Your task to perform on an android device: turn off data saver in the chrome app Image 0: 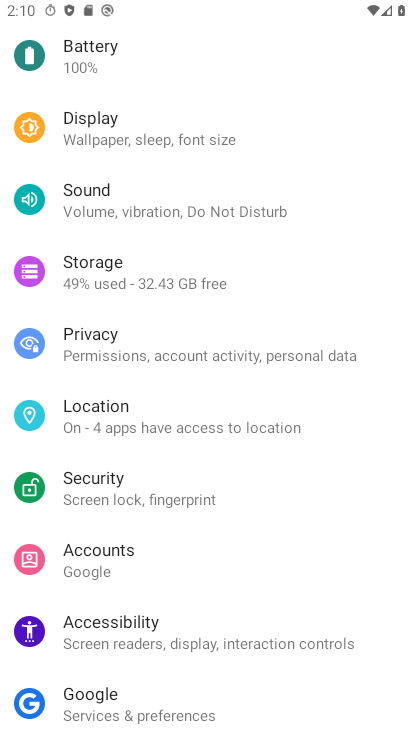
Step 0: press home button
Your task to perform on an android device: turn off data saver in the chrome app Image 1: 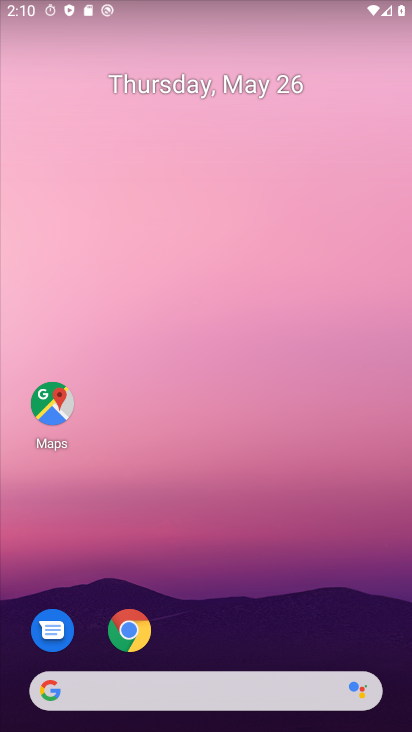
Step 1: click (120, 628)
Your task to perform on an android device: turn off data saver in the chrome app Image 2: 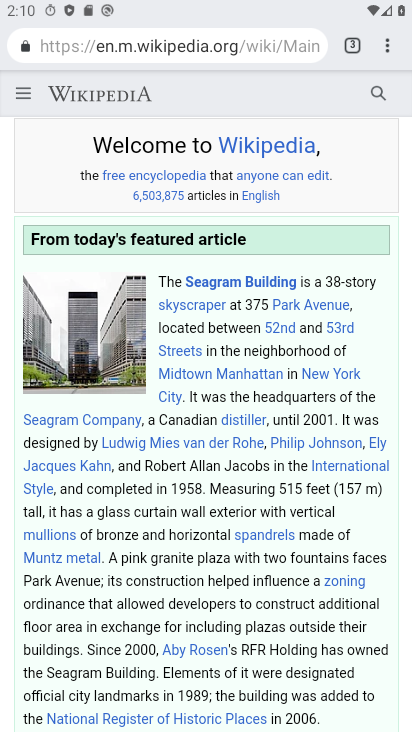
Step 2: click (381, 31)
Your task to perform on an android device: turn off data saver in the chrome app Image 3: 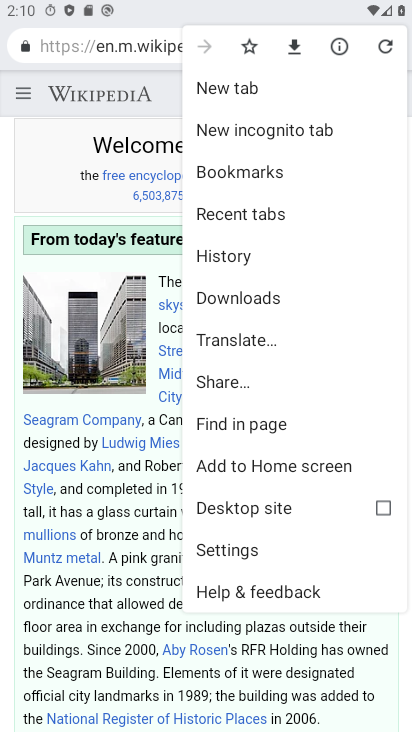
Step 3: click (238, 538)
Your task to perform on an android device: turn off data saver in the chrome app Image 4: 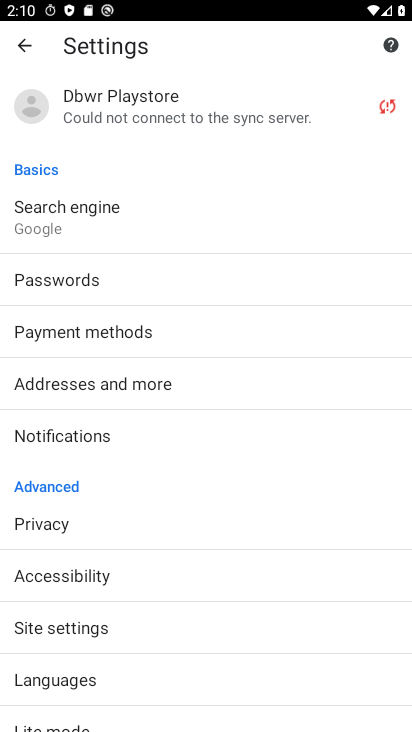
Step 4: drag from (176, 587) to (160, 186)
Your task to perform on an android device: turn off data saver in the chrome app Image 5: 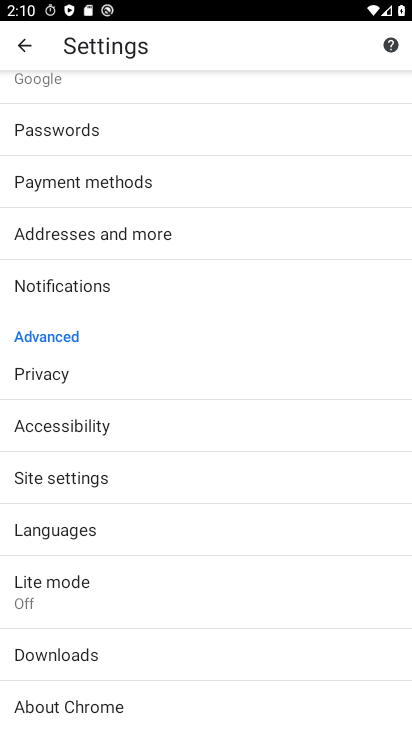
Step 5: click (82, 355)
Your task to perform on an android device: turn off data saver in the chrome app Image 6: 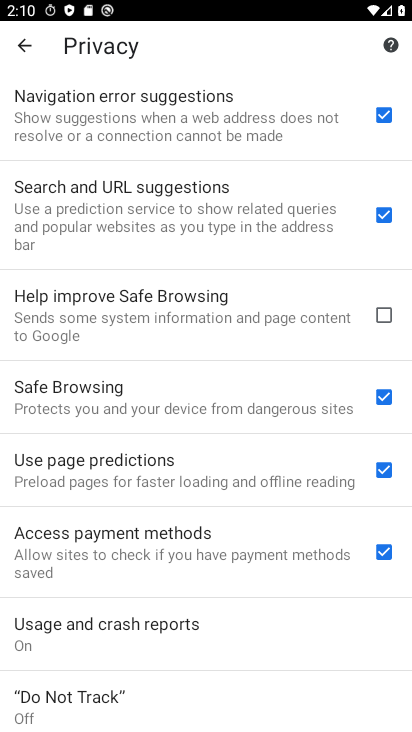
Step 6: drag from (109, 617) to (85, 164)
Your task to perform on an android device: turn off data saver in the chrome app Image 7: 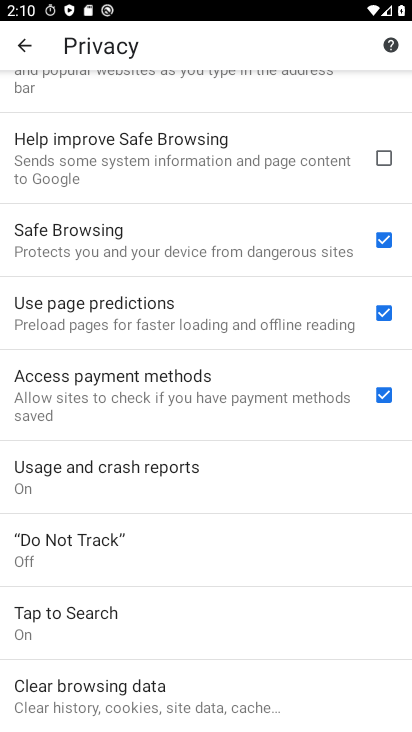
Step 7: drag from (105, 636) to (78, 219)
Your task to perform on an android device: turn off data saver in the chrome app Image 8: 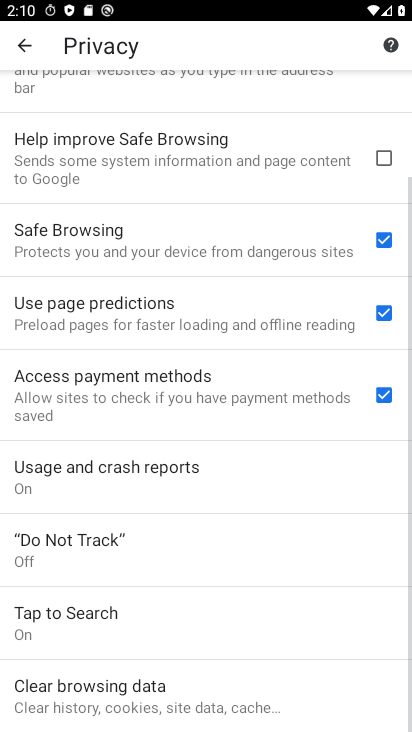
Step 8: press back button
Your task to perform on an android device: turn off data saver in the chrome app Image 9: 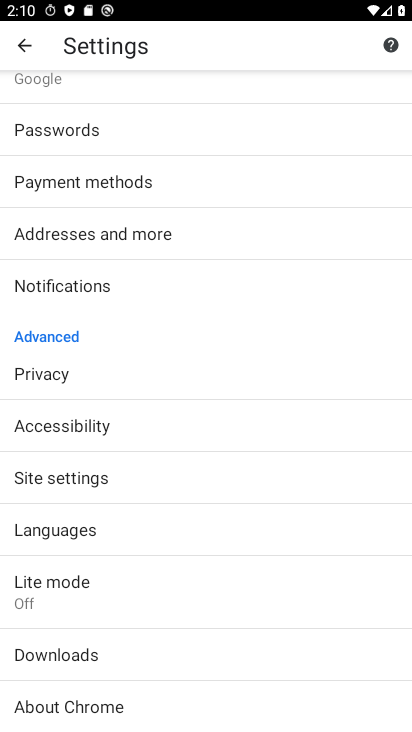
Step 9: click (89, 704)
Your task to perform on an android device: turn off data saver in the chrome app Image 10: 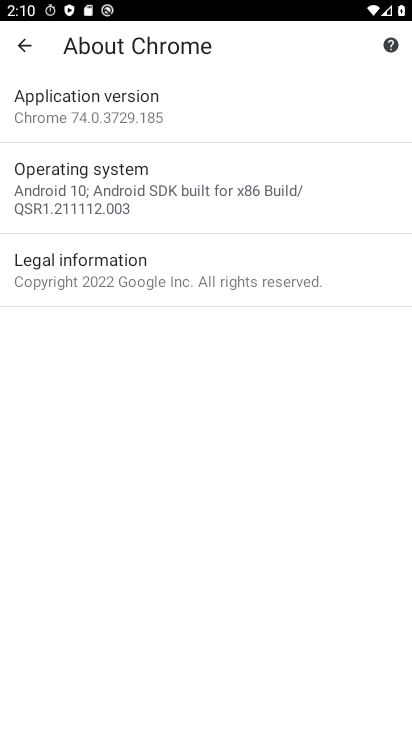
Step 10: press back button
Your task to perform on an android device: turn off data saver in the chrome app Image 11: 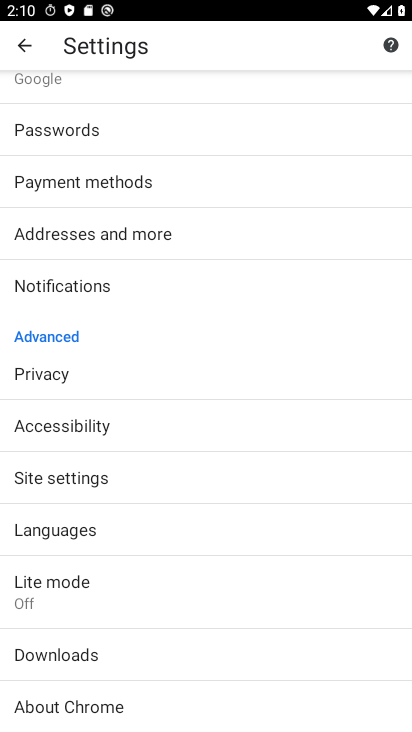
Step 11: click (60, 485)
Your task to perform on an android device: turn off data saver in the chrome app Image 12: 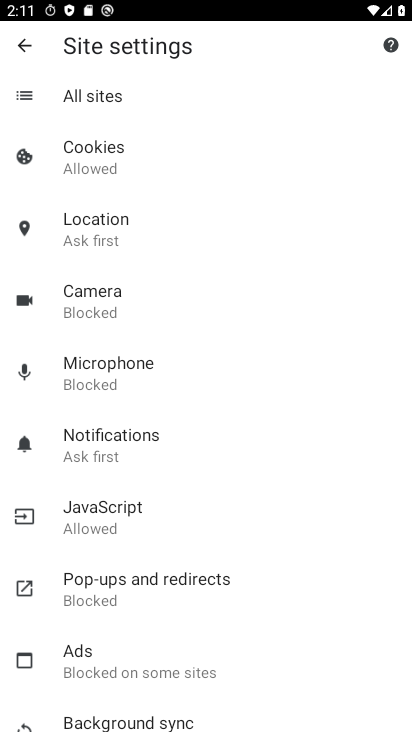
Step 12: task complete